Your task to perform on an android device: open app "Nova Launcher" Image 0: 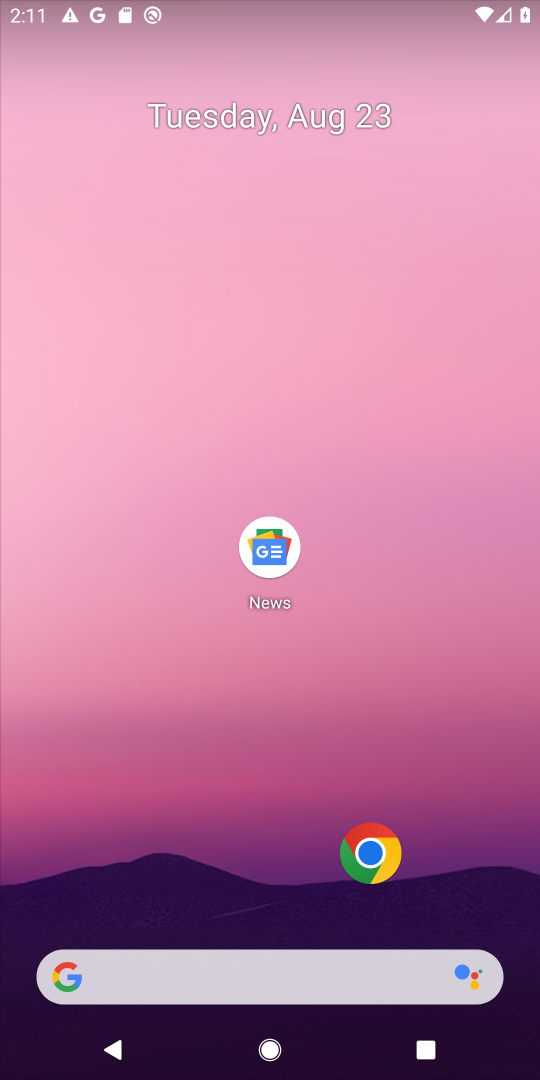
Step 0: drag from (484, 787) to (414, 102)
Your task to perform on an android device: open app "Nova Launcher" Image 1: 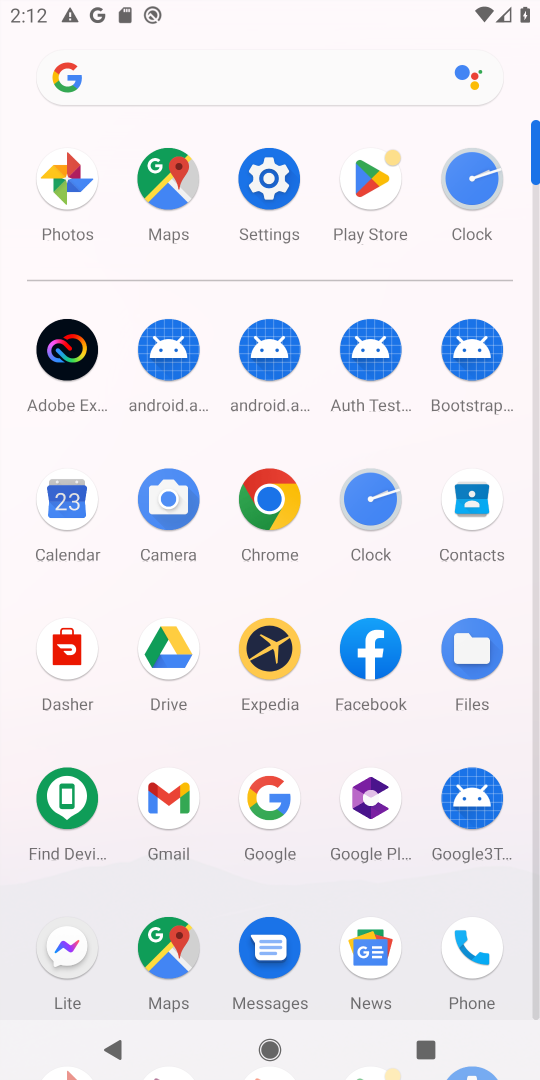
Step 1: click (536, 991)
Your task to perform on an android device: open app "Nova Launcher" Image 2: 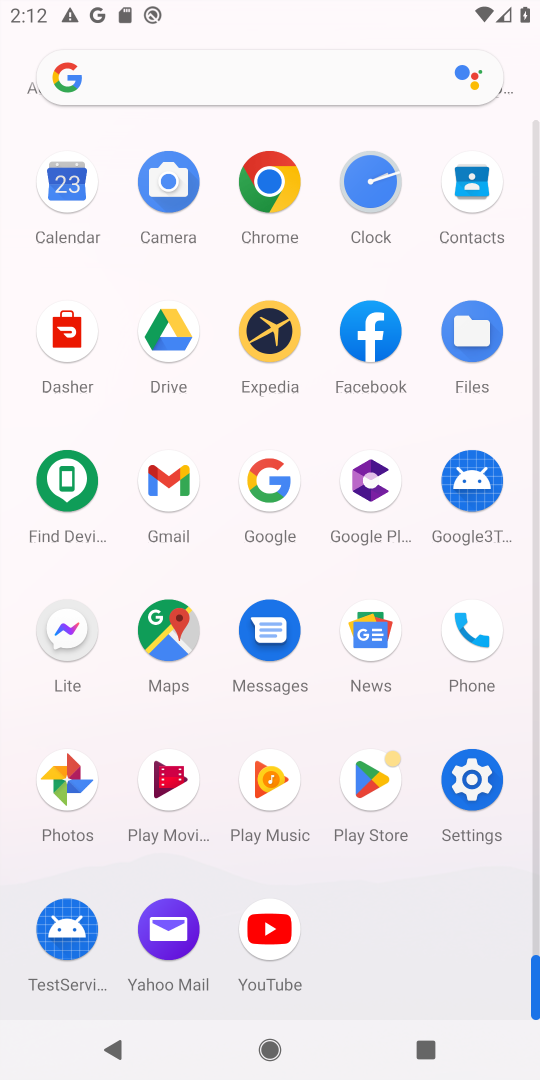
Step 2: click (374, 784)
Your task to perform on an android device: open app "Nova Launcher" Image 3: 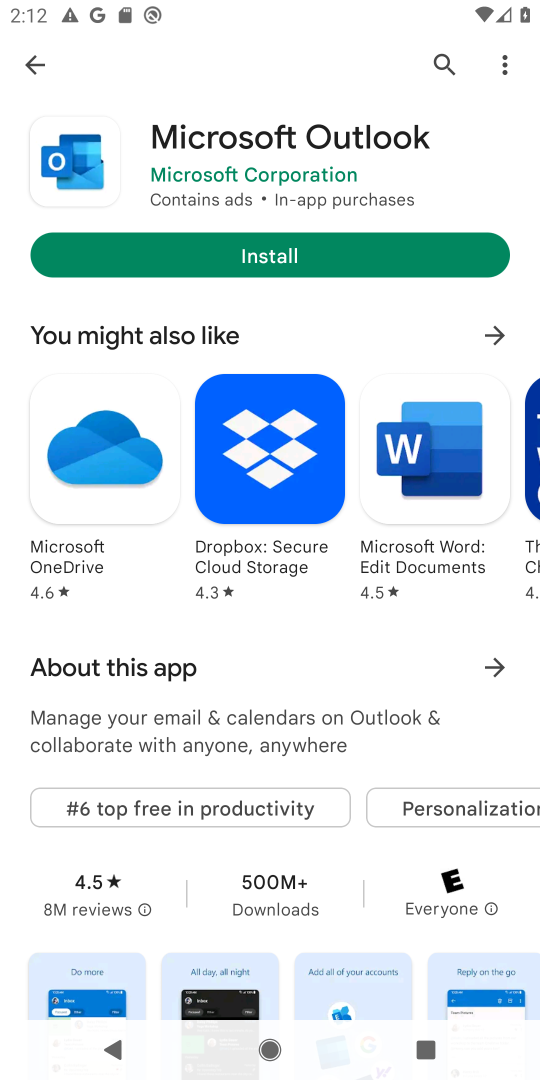
Step 3: click (442, 56)
Your task to perform on an android device: open app "Nova Launcher" Image 4: 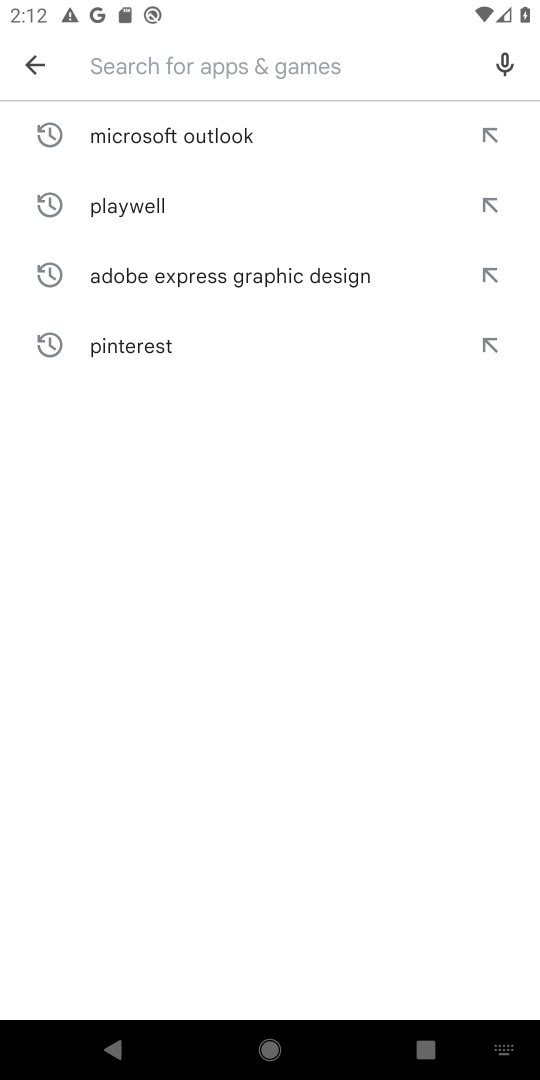
Step 4: type "Nova Launcher"
Your task to perform on an android device: open app "Nova Launcher" Image 5: 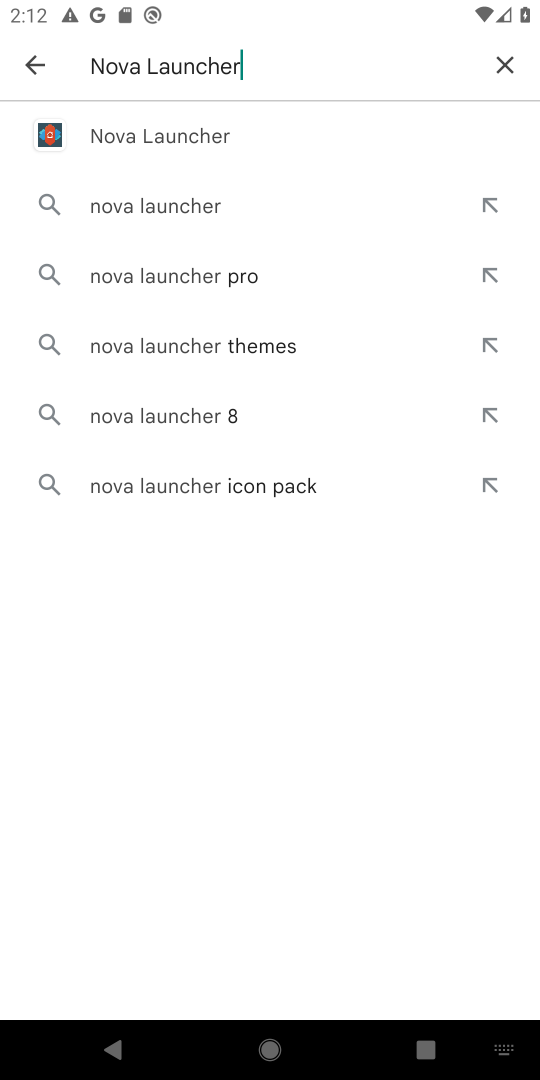
Step 5: click (164, 130)
Your task to perform on an android device: open app "Nova Launcher" Image 6: 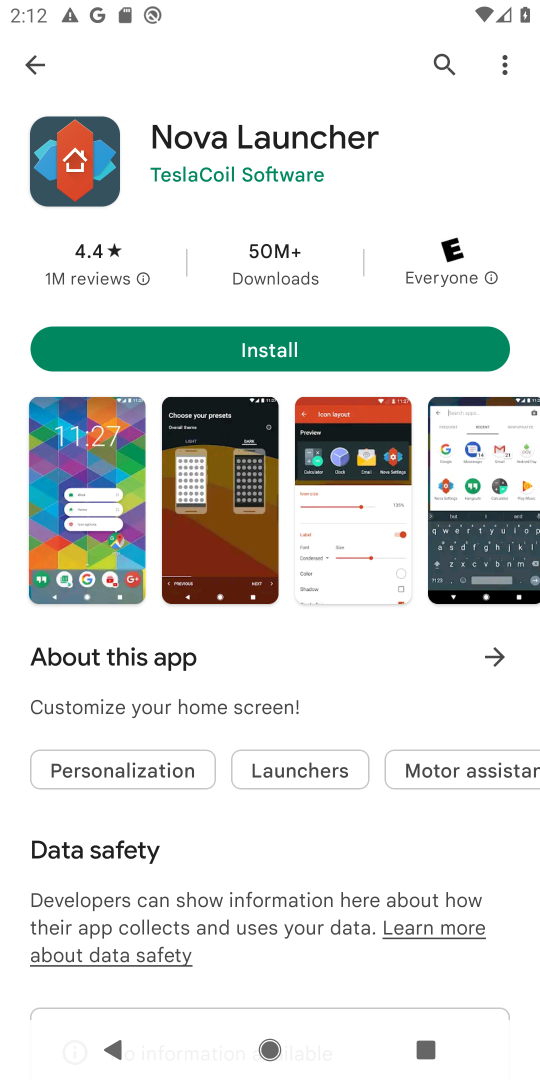
Step 6: click (272, 352)
Your task to perform on an android device: open app "Nova Launcher" Image 7: 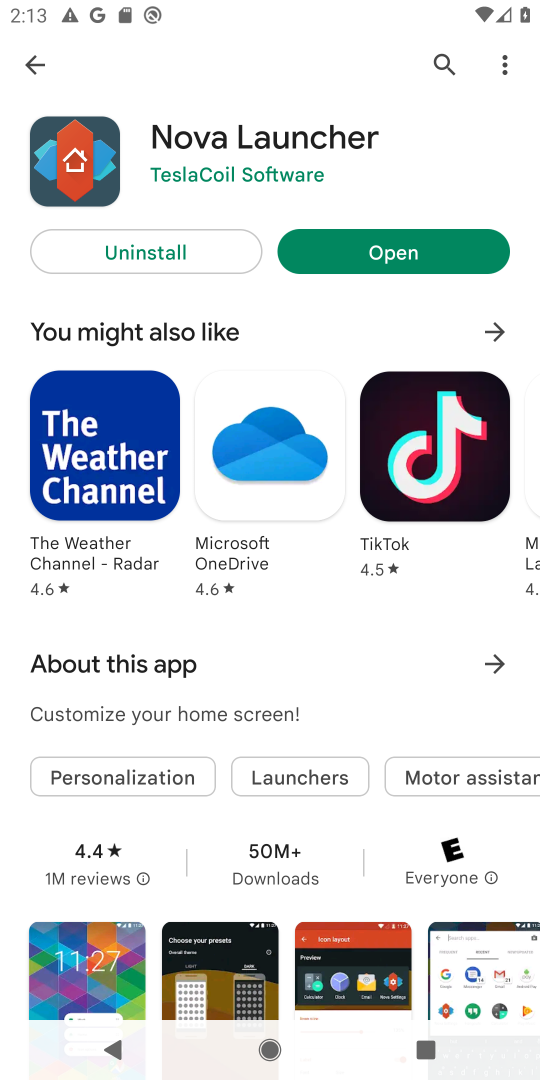
Step 7: click (386, 253)
Your task to perform on an android device: open app "Nova Launcher" Image 8: 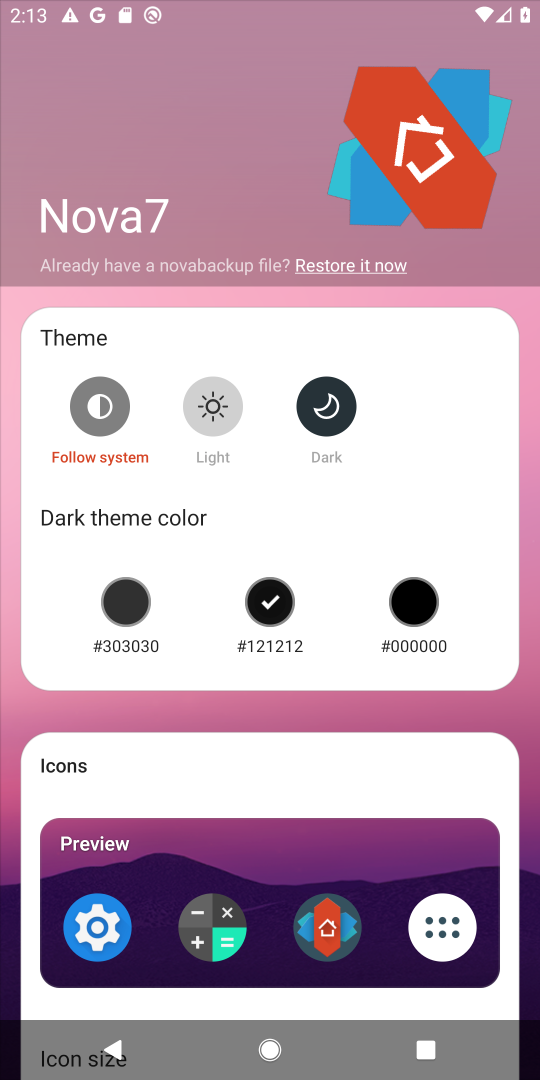
Step 8: task complete